Your task to perform on an android device: Go to privacy settings Image 0: 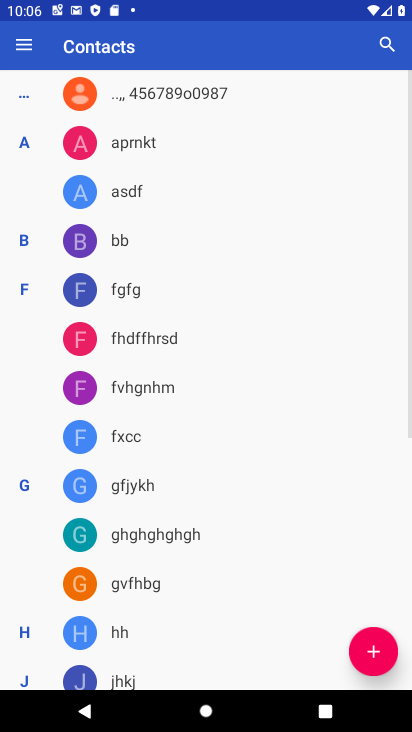
Step 0: press back button
Your task to perform on an android device: Go to privacy settings Image 1: 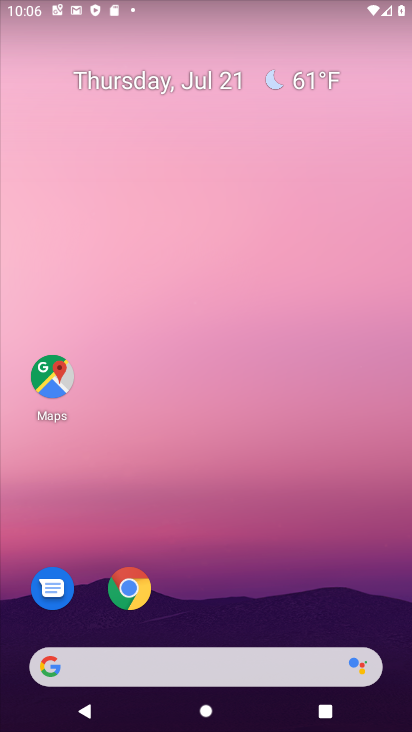
Step 1: click (128, 586)
Your task to perform on an android device: Go to privacy settings Image 2: 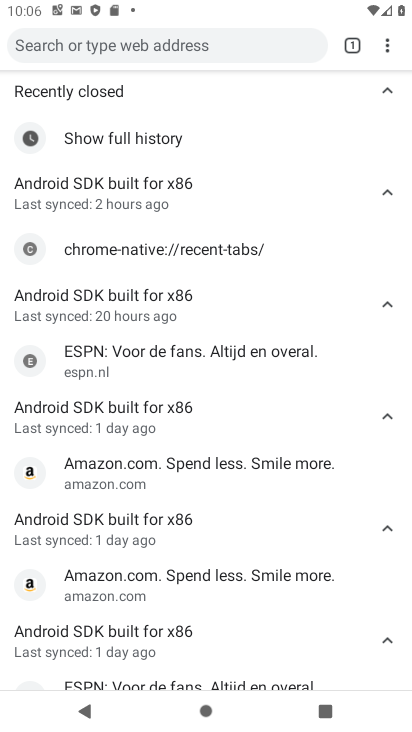
Step 2: drag from (385, 42) to (235, 388)
Your task to perform on an android device: Go to privacy settings Image 3: 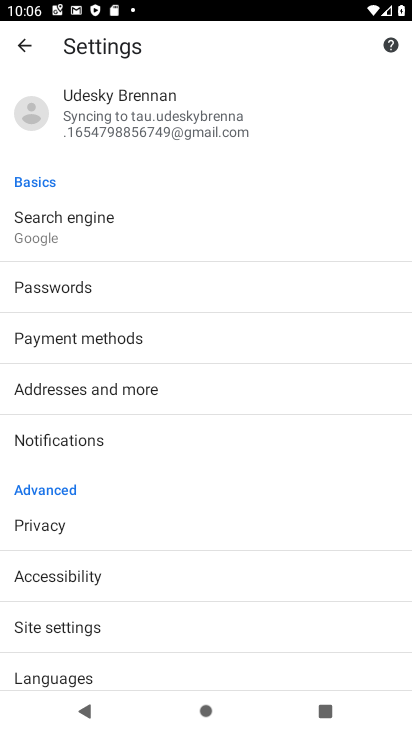
Step 3: click (53, 520)
Your task to perform on an android device: Go to privacy settings Image 4: 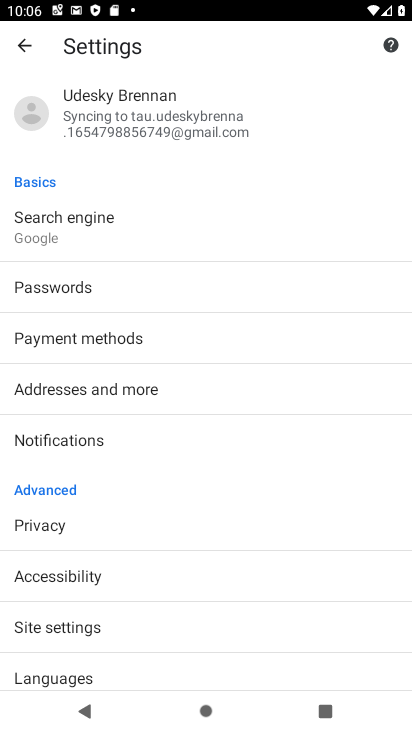
Step 4: task complete